Your task to perform on an android device: see sites visited before in the chrome app Image 0: 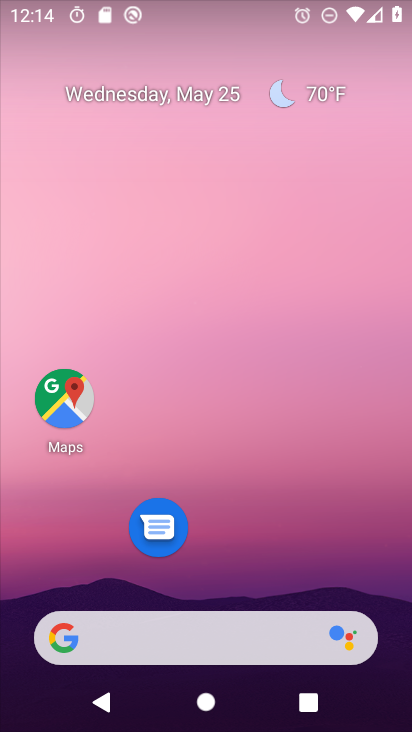
Step 0: drag from (251, 560) to (253, 124)
Your task to perform on an android device: see sites visited before in the chrome app Image 1: 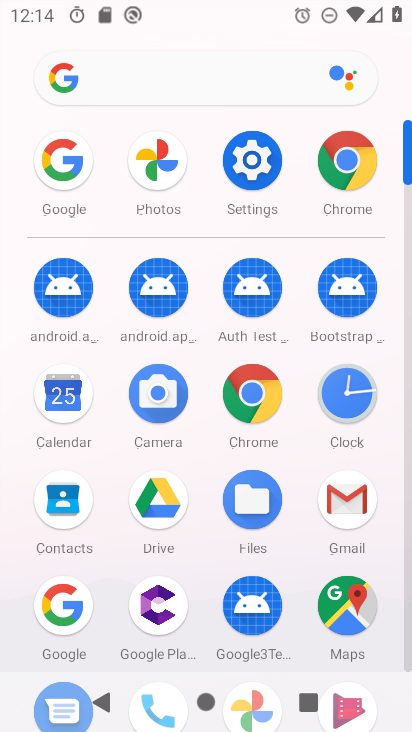
Step 1: click (353, 169)
Your task to perform on an android device: see sites visited before in the chrome app Image 2: 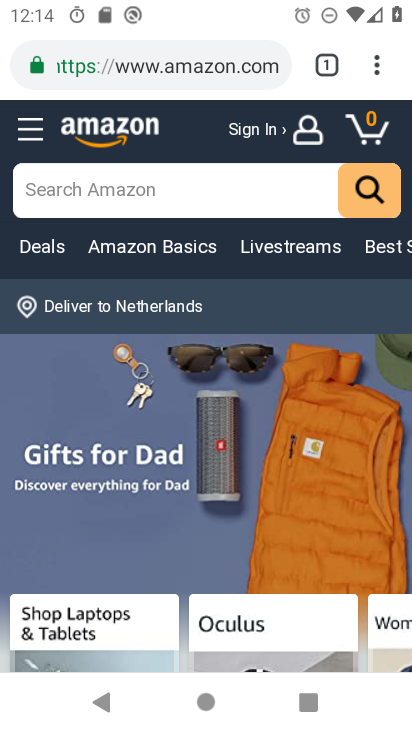
Step 2: click (369, 66)
Your task to perform on an android device: see sites visited before in the chrome app Image 3: 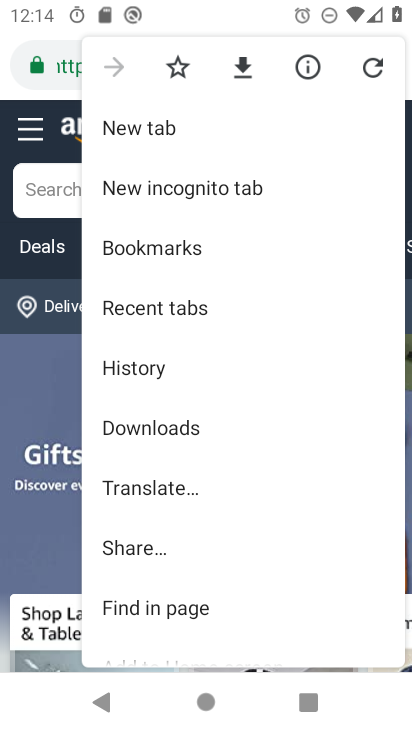
Step 3: drag from (214, 570) to (255, 451)
Your task to perform on an android device: see sites visited before in the chrome app Image 4: 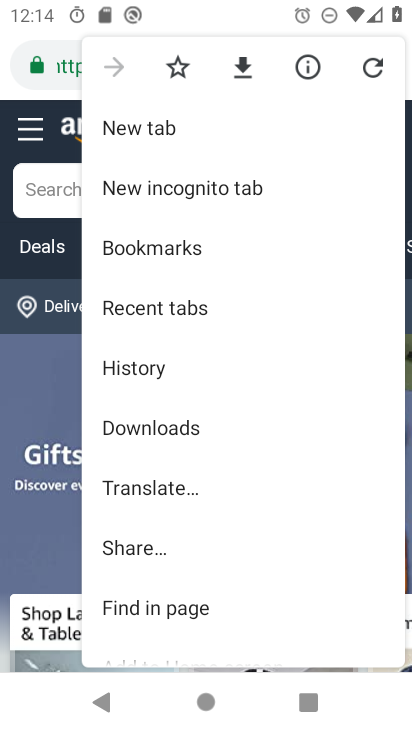
Step 4: click (168, 377)
Your task to perform on an android device: see sites visited before in the chrome app Image 5: 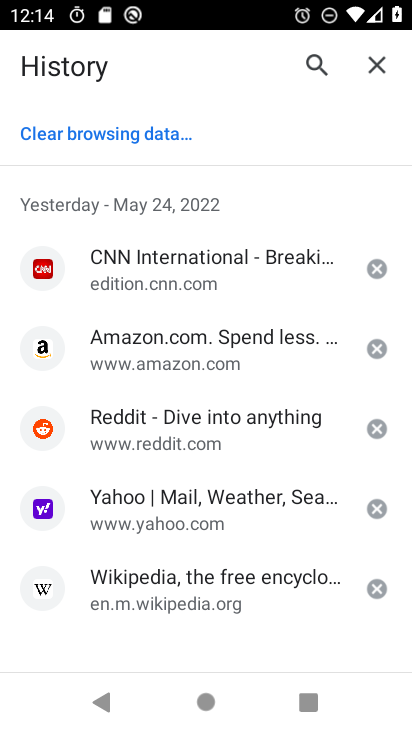
Step 5: task complete